Your task to perform on an android device: move an email to a new category in the gmail app Image 0: 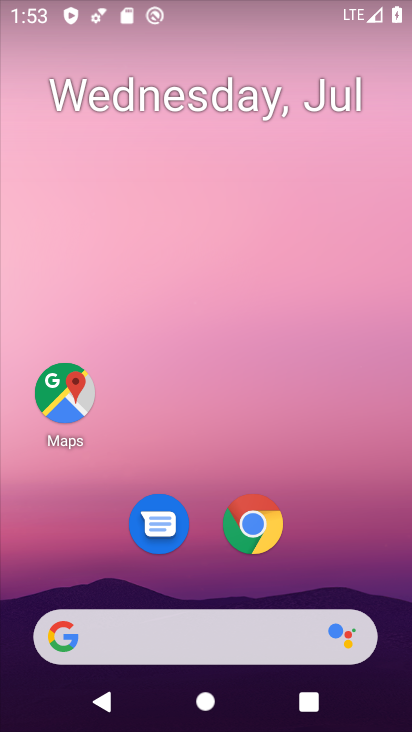
Step 0: drag from (334, 539) to (327, 40)
Your task to perform on an android device: move an email to a new category in the gmail app Image 1: 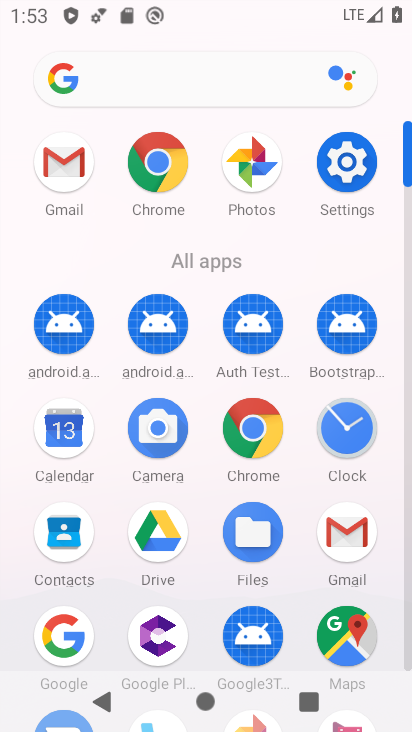
Step 1: click (63, 175)
Your task to perform on an android device: move an email to a new category in the gmail app Image 2: 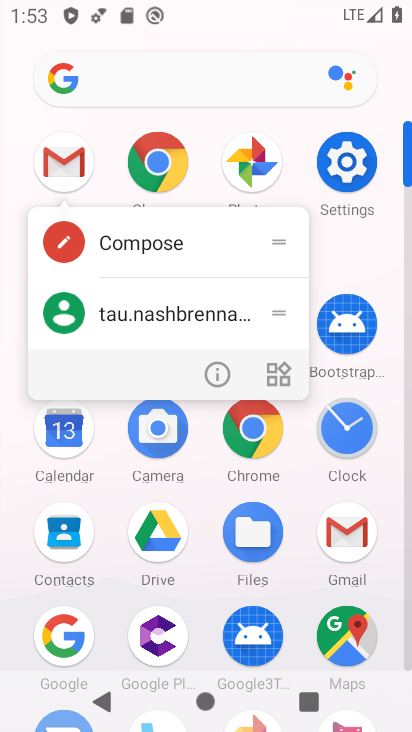
Step 2: click (60, 160)
Your task to perform on an android device: move an email to a new category in the gmail app Image 3: 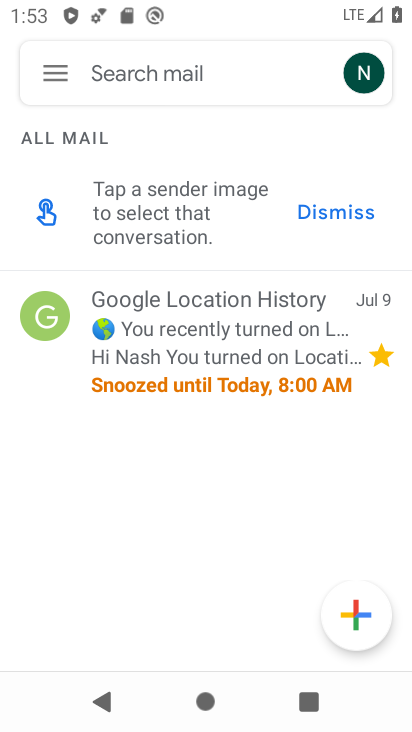
Step 3: click (238, 328)
Your task to perform on an android device: move an email to a new category in the gmail app Image 4: 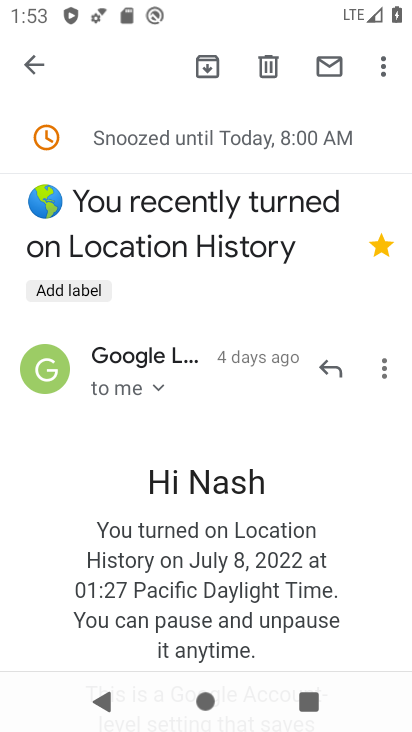
Step 4: click (385, 65)
Your task to perform on an android device: move an email to a new category in the gmail app Image 5: 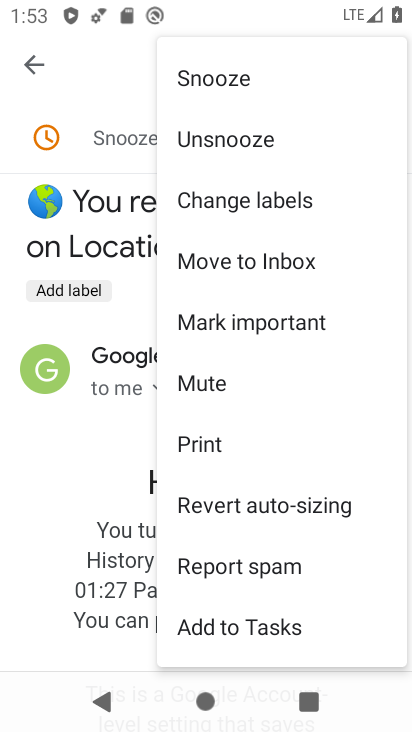
Step 5: click (287, 260)
Your task to perform on an android device: move an email to a new category in the gmail app Image 6: 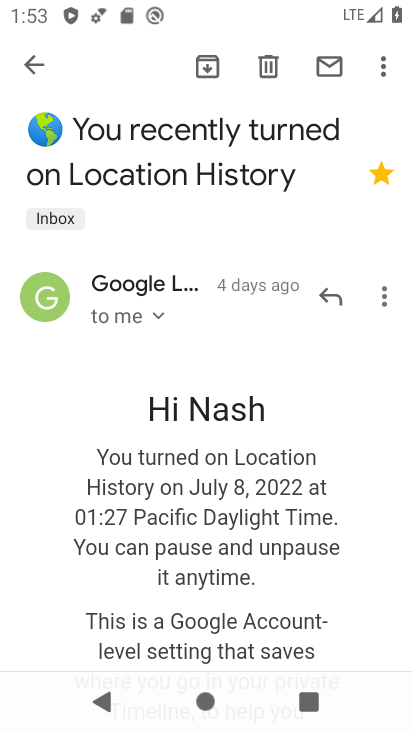
Step 6: task complete